Your task to perform on an android device: Open wifi settings Image 0: 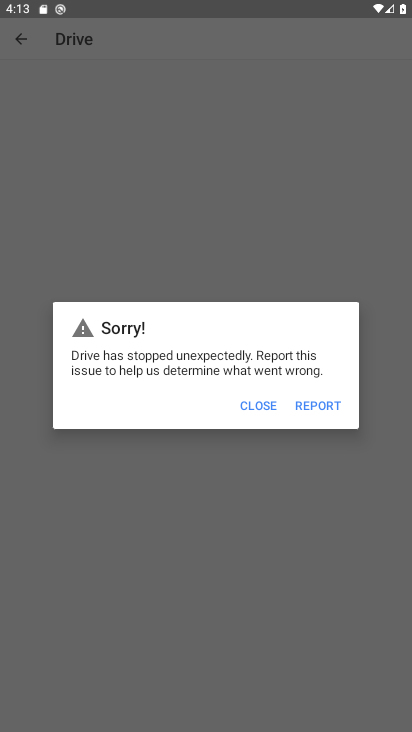
Step 0: press back button
Your task to perform on an android device: Open wifi settings Image 1: 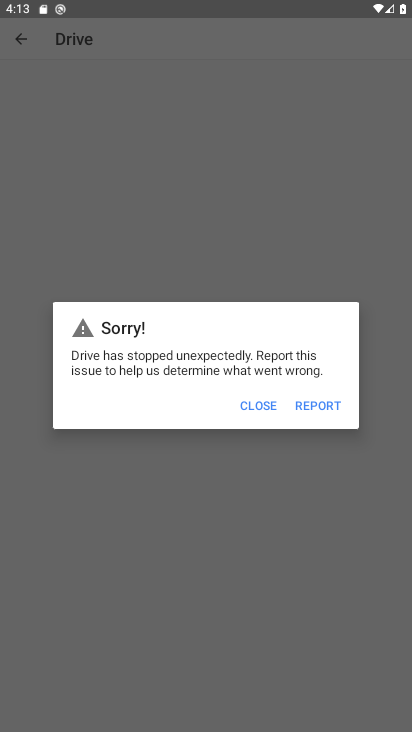
Step 1: press home button
Your task to perform on an android device: Open wifi settings Image 2: 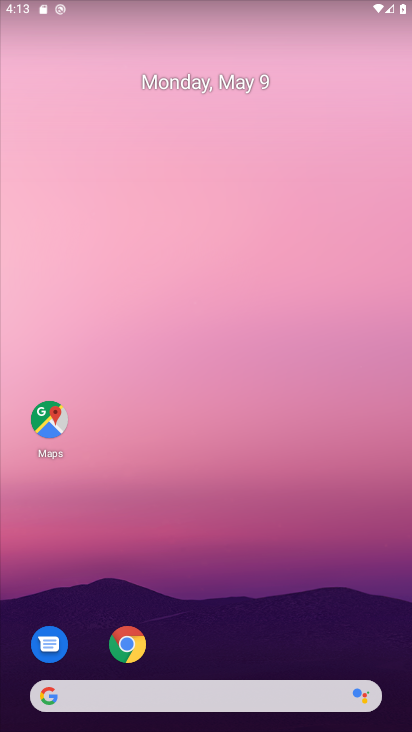
Step 2: drag from (243, 581) to (287, 34)
Your task to perform on an android device: Open wifi settings Image 3: 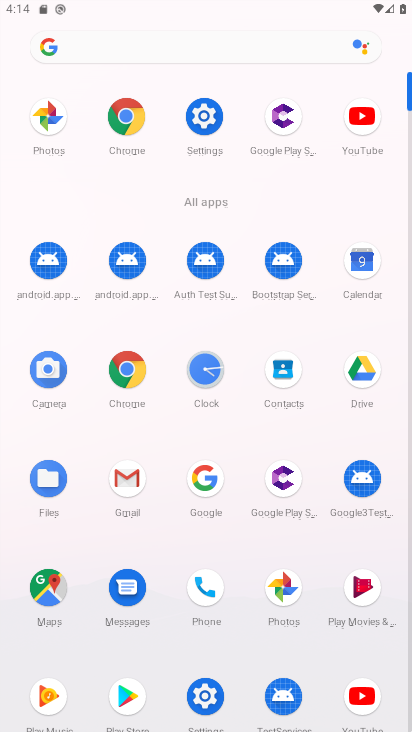
Step 3: click (206, 115)
Your task to perform on an android device: Open wifi settings Image 4: 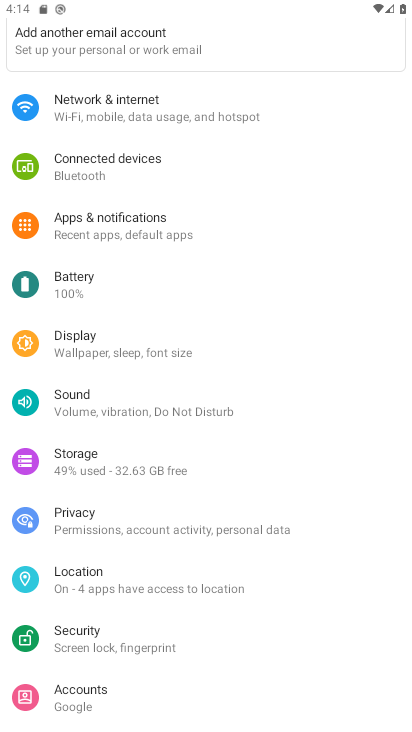
Step 4: drag from (191, 184) to (186, 380)
Your task to perform on an android device: Open wifi settings Image 5: 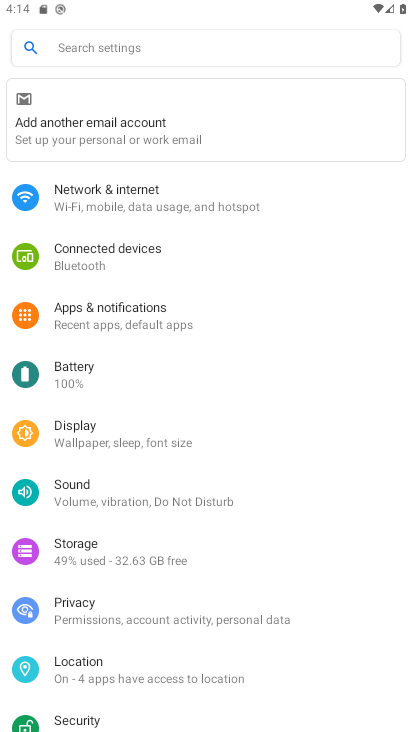
Step 5: click (98, 193)
Your task to perform on an android device: Open wifi settings Image 6: 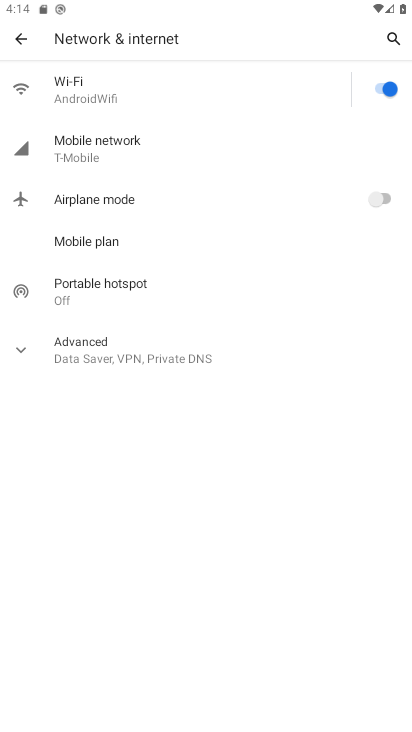
Step 6: click (82, 98)
Your task to perform on an android device: Open wifi settings Image 7: 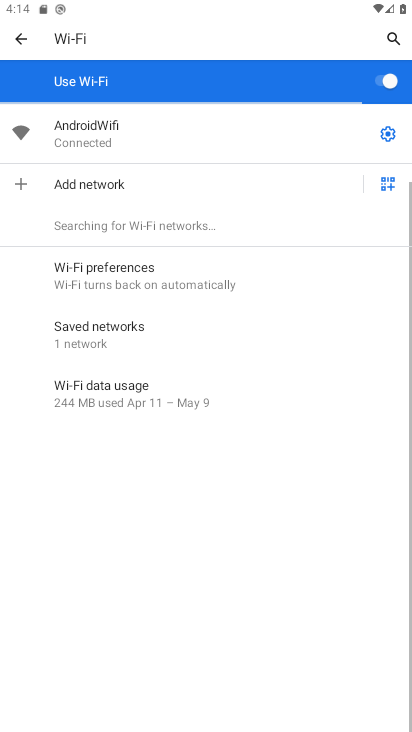
Step 7: click (390, 135)
Your task to perform on an android device: Open wifi settings Image 8: 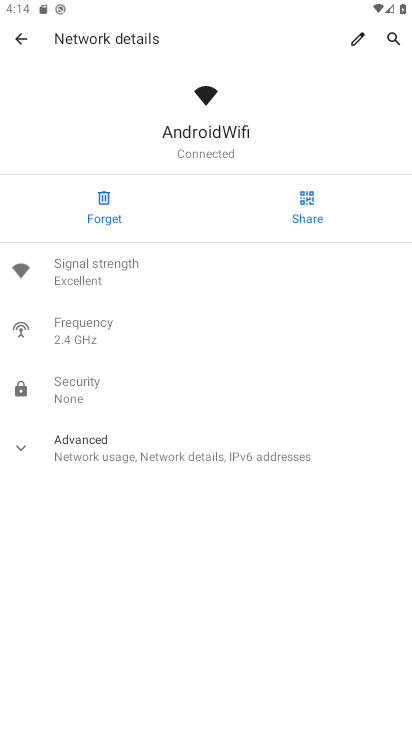
Step 8: task complete